Your task to perform on an android device: add a contact in the contacts app Image 0: 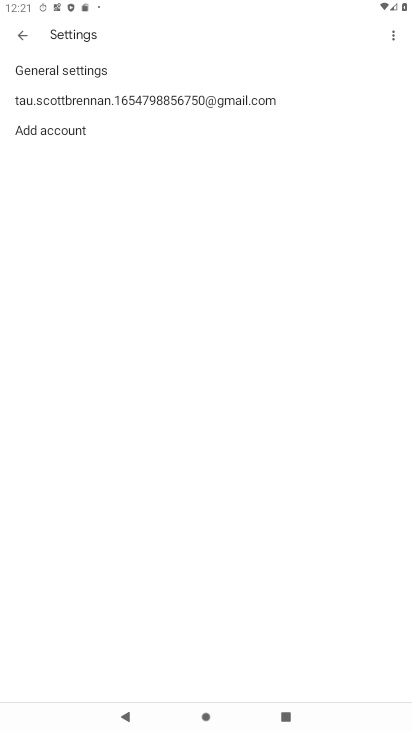
Step 0: click (22, 35)
Your task to perform on an android device: add a contact in the contacts app Image 1: 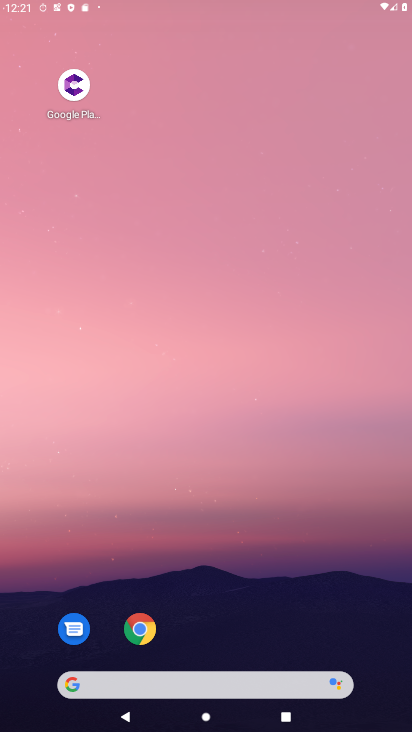
Step 1: click (27, 36)
Your task to perform on an android device: add a contact in the contacts app Image 2: 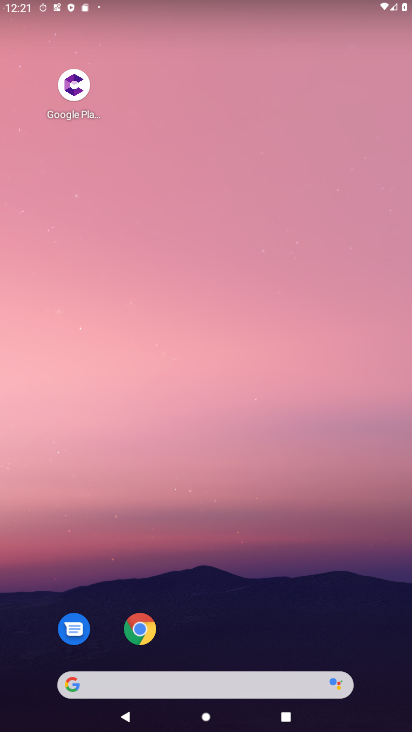
Step 2: drag from (19, 31) to (209, 26)
Your task to perform on an android device: add a contact in the contacts app Image 3: 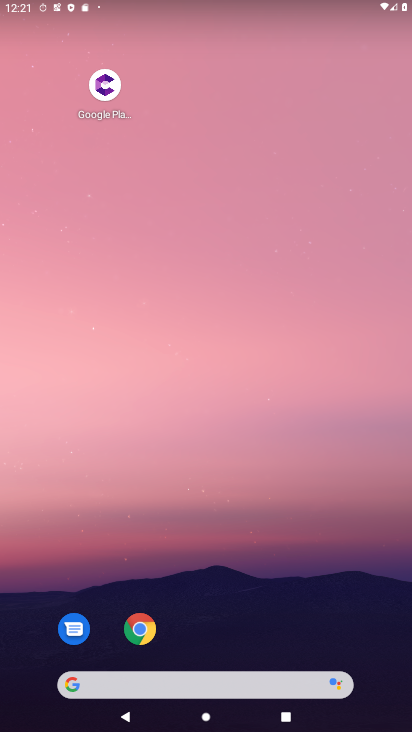
Step 3: drag from (263, 216) to (268, 23)
Your task to perform on an android device: add a contact in the contacts app Image 4: 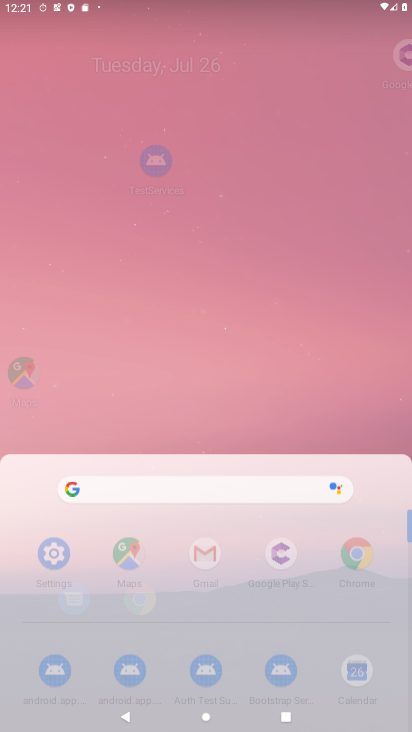
Step 4: drag from (269, 440) to (219, 147)
Your task to perform on an android device: add a contact in the contacts app Image 5: 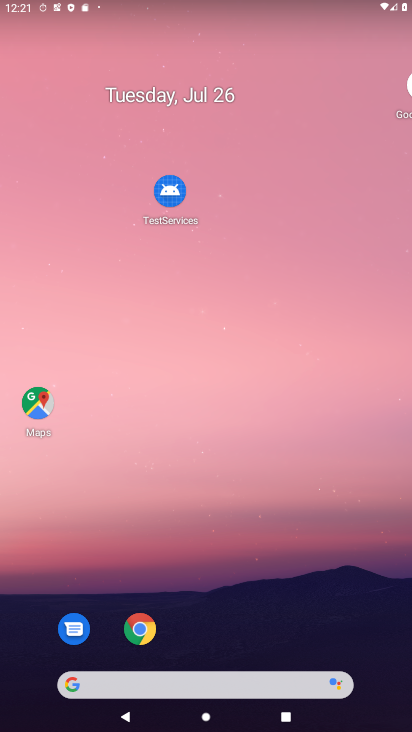
Step 5: drag from (216, 481) to (216, 71)
Your task to perform on an android device: add a contact in the contacts app Image 6: 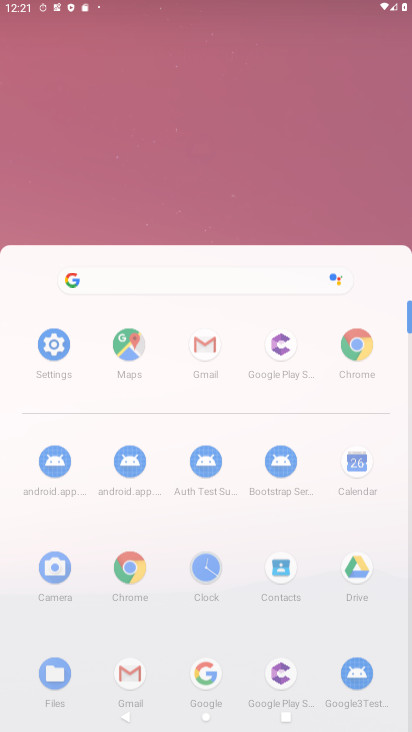
Step 6: drag from (241, 477) to (229, 303)
Your task to perform on an android device: add a contact in the contacts app Image 7: 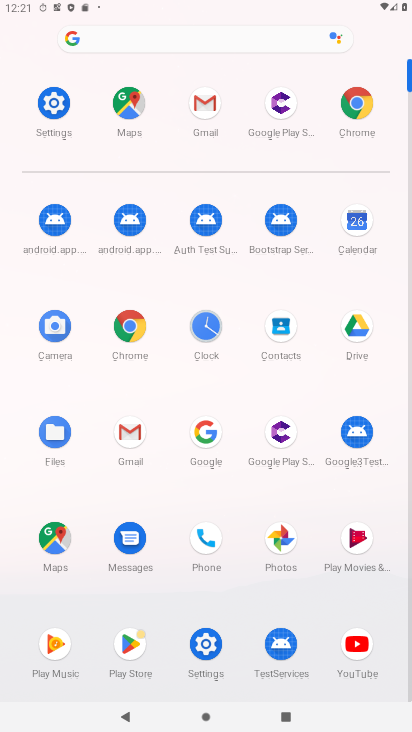
Step 7: click (284, 323)
Your task to perform on an android device: add a contact in the contacts app Image 8: 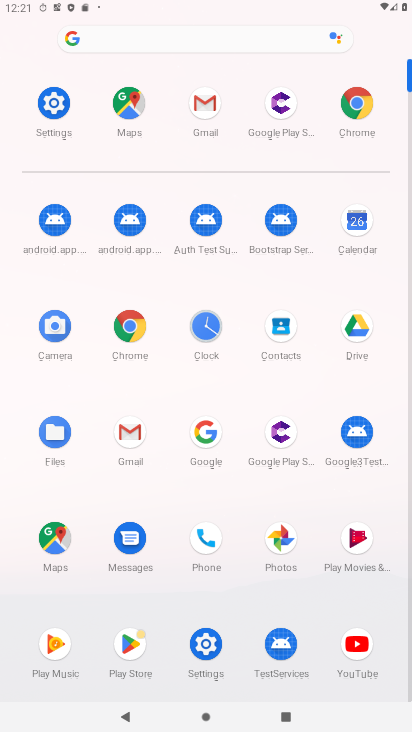
Step 8: click (284, 323)
Your task to perform on an android device: add a contact in the contacts app Image 9: 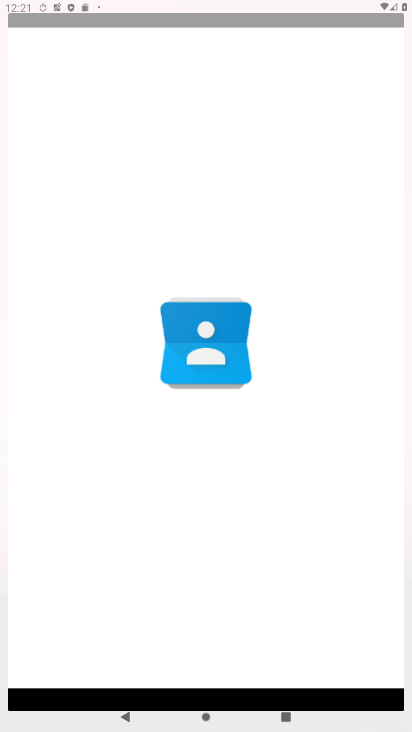
Step 9: click (282, 323)
Your task to perform on an android device: add a contact in the contacts app Image 10: 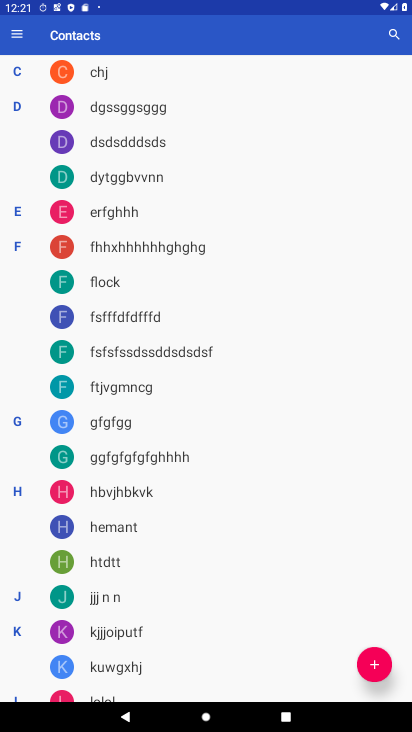
Step 10: drag from (298, 549) to (267, 329)
Your task to perform on an android device: add a contact in the contacts app Image 11: 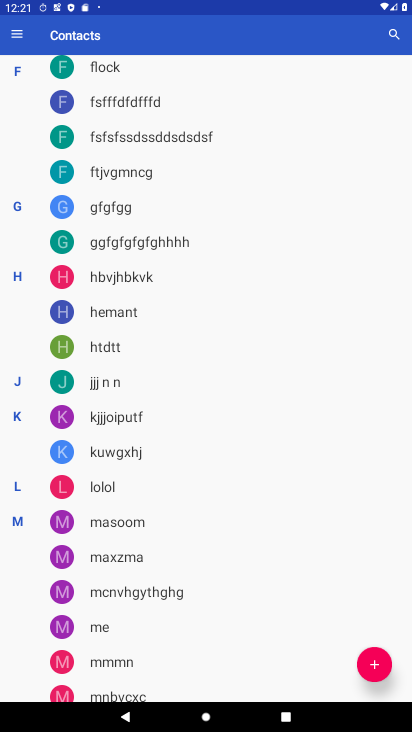
Step 11: click (368, 672)
Your task to perform on an android device: add a contact in the contacts app Image 12: 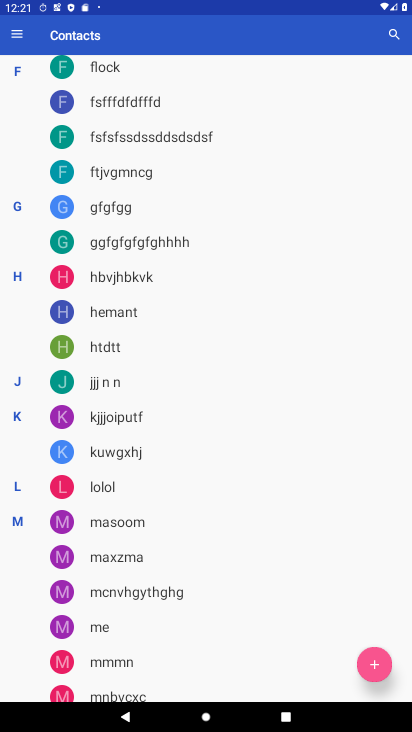
Step 12: click (368, 672)
Your task to perform on an android device: add a contact in the contacts app Image 13: 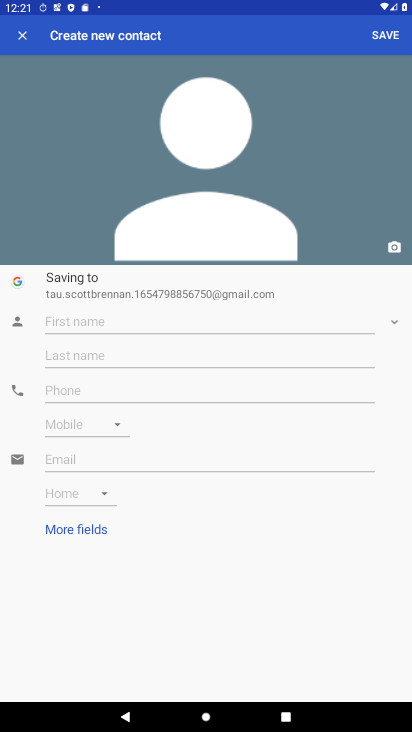
Step 13: click (56, 322)
Your task to perform on an android device: add a contact in the contacts app Image 14: 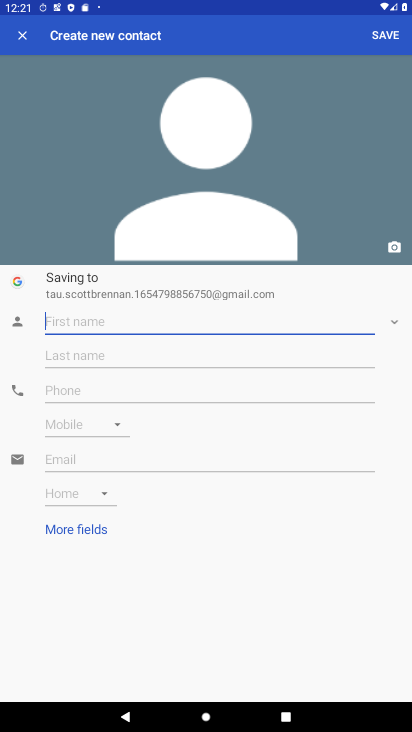
Step 14: click (53, 319)
Your task to perform on an android device: add a contact in the contacts app Image 15: 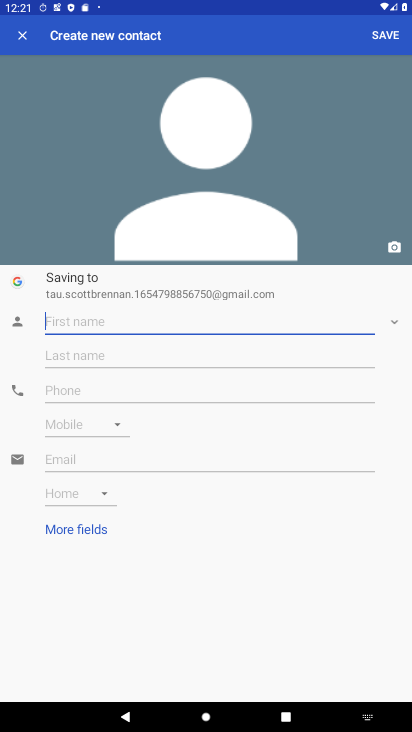
Step 15: type "dbchjdbvj"
Your task to perform on an android device: add a contact in the contacts app Image 16: 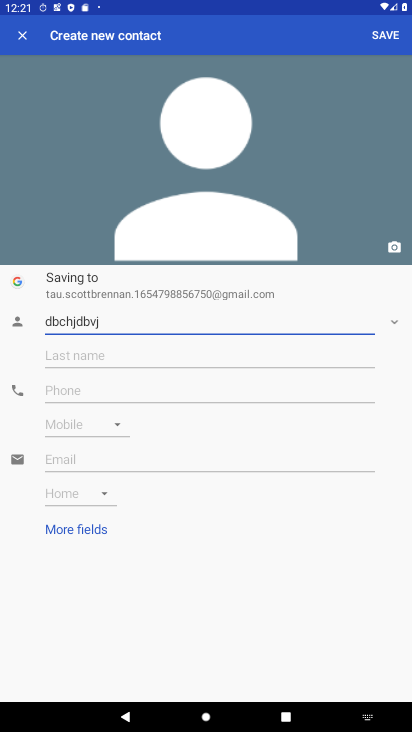
Step 16: click (68, 389)
Your task to perform on an android device: add a contact in the contacts app Image 17: 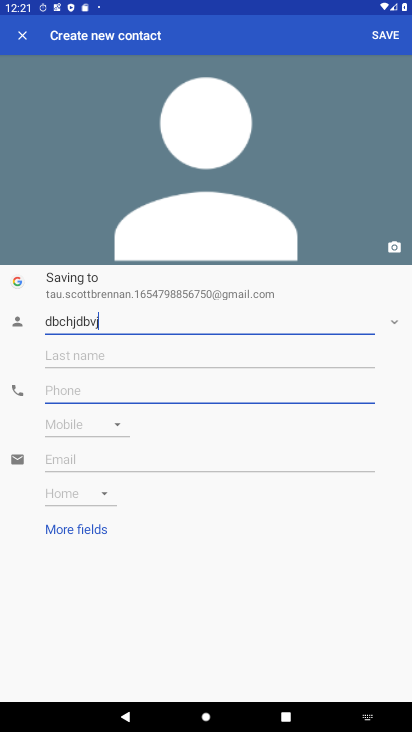
Step 17: click (68, 389)
Your task to perform on an android device: add a contact in the contacts app Image 18: 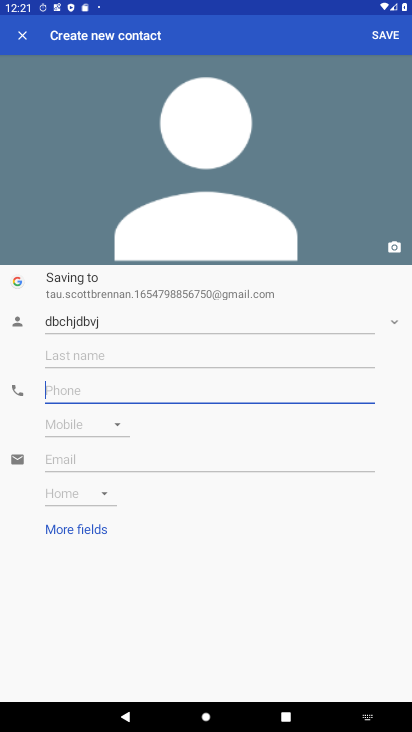
Step 18: click (68, 389)
Your task to perform on an android device: add a contact in the contacts app Image 19: 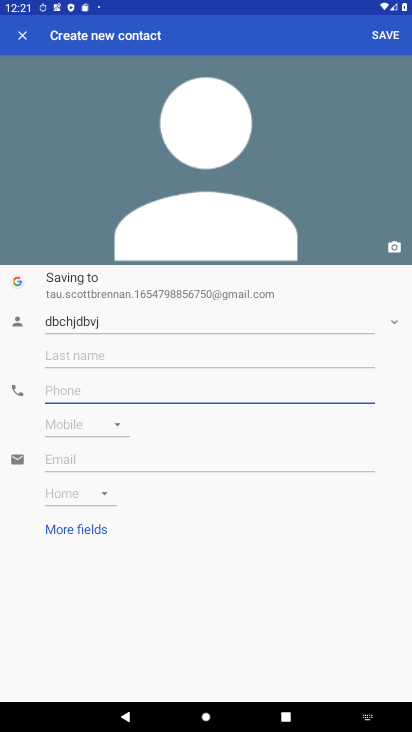
Step 19: click (68, 389)
Your task to perform on an android device: add a contact in the contacts app Image 20: 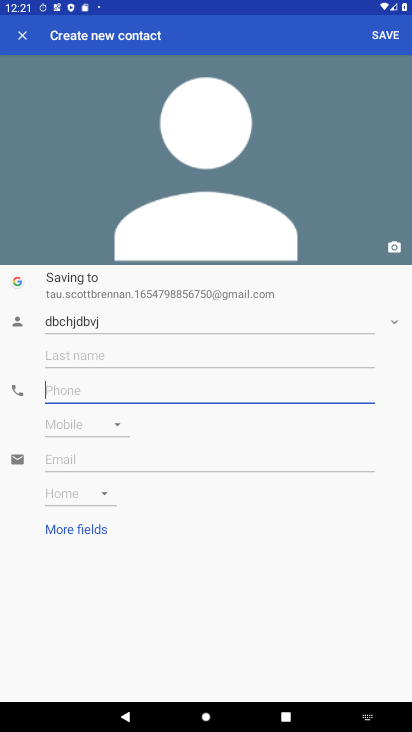
Step 20: click (57, 391)
Your task to perform on an android device: add a contact in the contacts app Image 21: 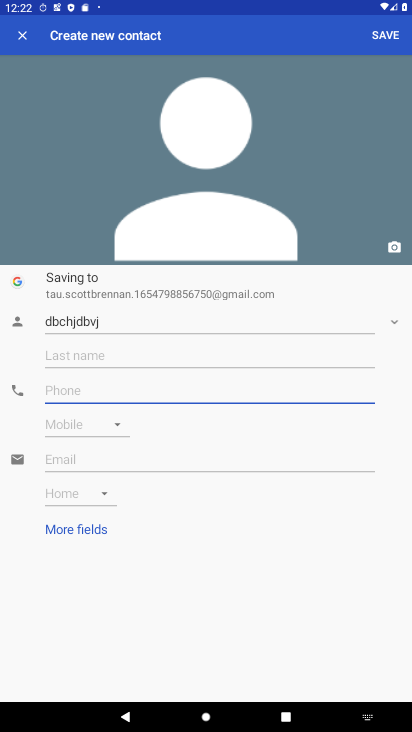
Step 21: type "7988769576589"
Your task to perform on an android device: add a contact in the contacts app Image 22: 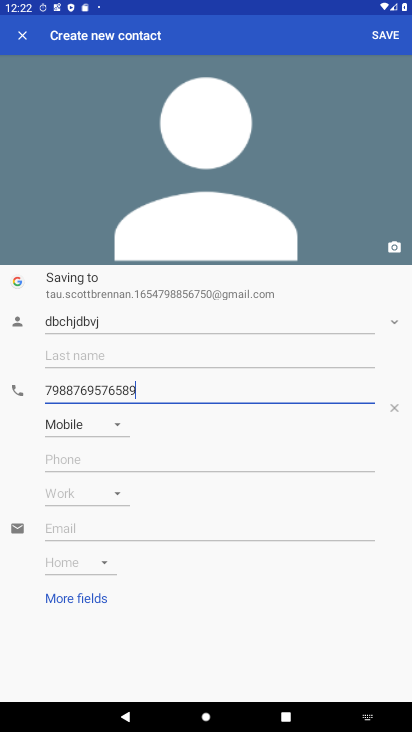
Step 22: click (377, 18)
Your task to perform on an android device: add a contact in the contacts app Image 23: 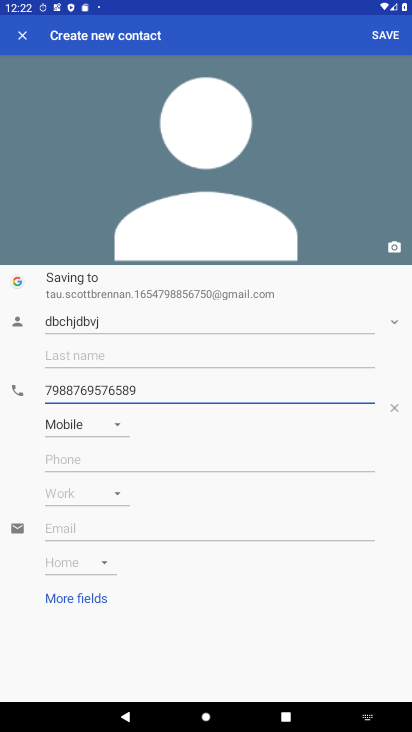
Step 23: click (383, 25)
Your task to perform on an android device: add a contact in the contacts app Image 24: 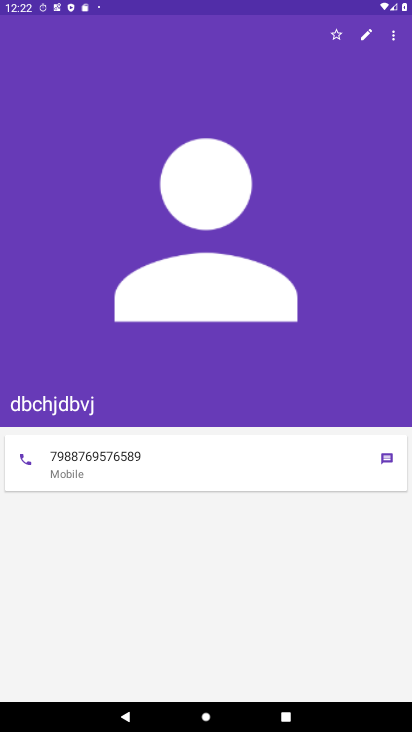
Step 24: task complete